Your task to perform on an android device: add a contact Image 0: 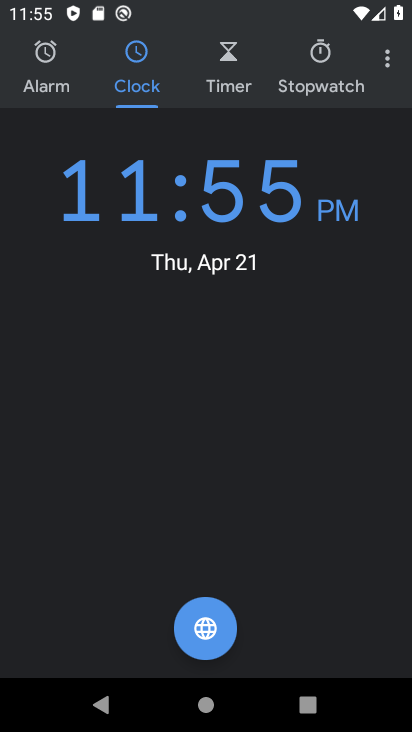
Step 0: press home button
Your task to perform on an android device: add a contact Image 1: 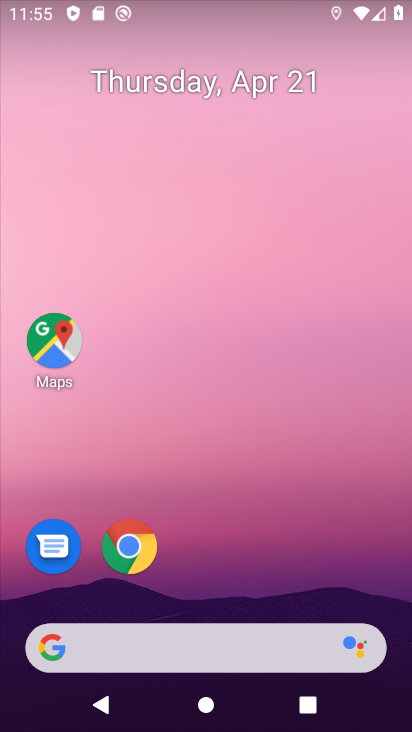
Step 1: drag from (218, 725) to (186, 226)
Your task to perform on an android device: add a contact Image 2: 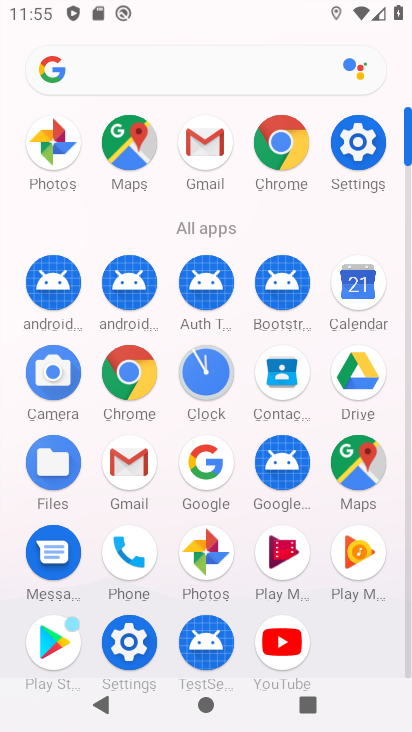
Step 2: click (284, 374)
Your task to perform on an android device: add a contact Image 3: 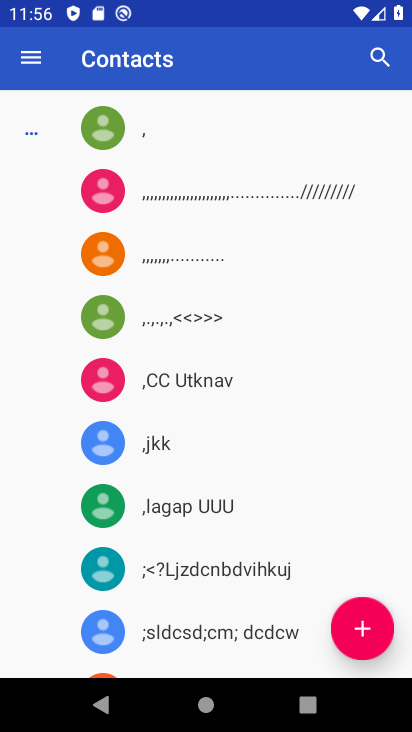
Step 3: click (359, 626)
Your task to perform on an android device: add a contact Image 4: 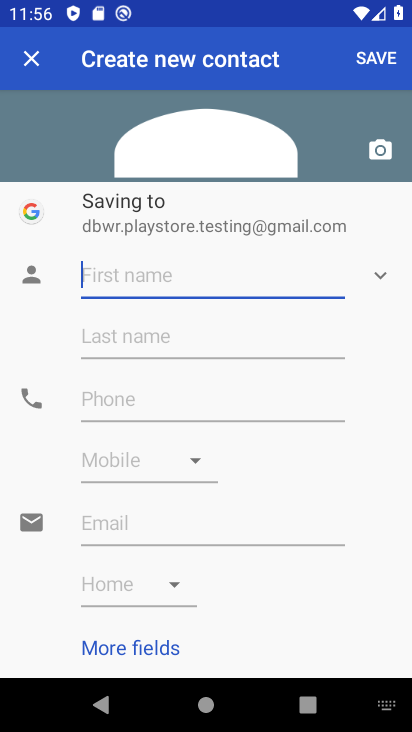
Step 4: type "mmmmm"
Your task to perform on an android device: add a contact Image 5: 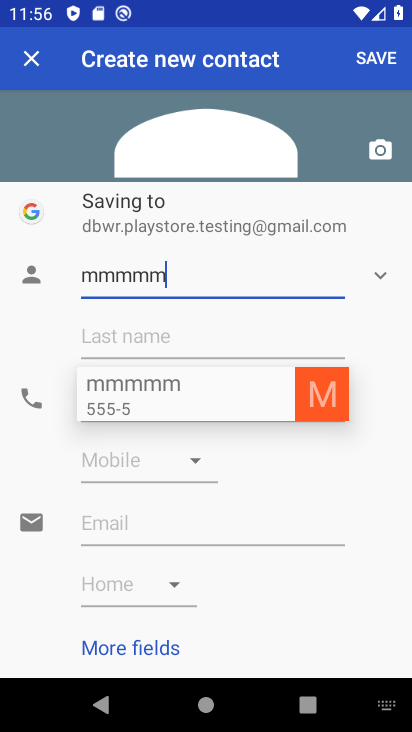
Step 5: type "vvvv"
Your task to perform on an android device: add a contact Image 6: 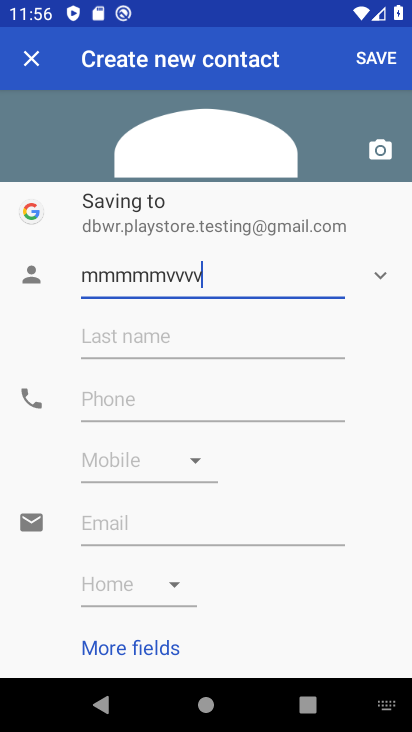
Step 6: click (177, 400)
Your task to perform on an android device: add a contact Image 7: 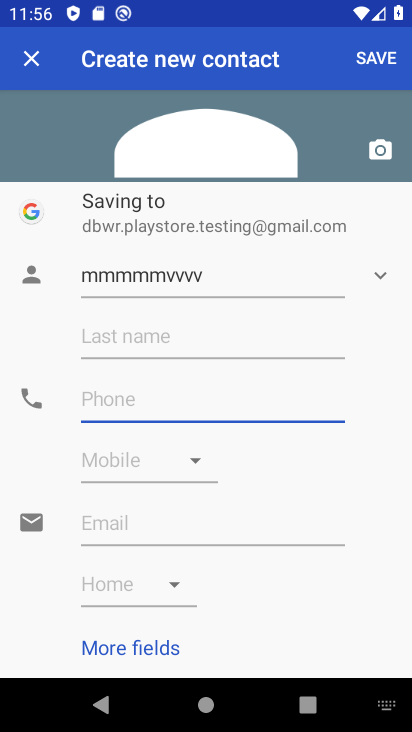
Step 7: type "98765"
Your task to perform on an android device: add a contact Image 8: 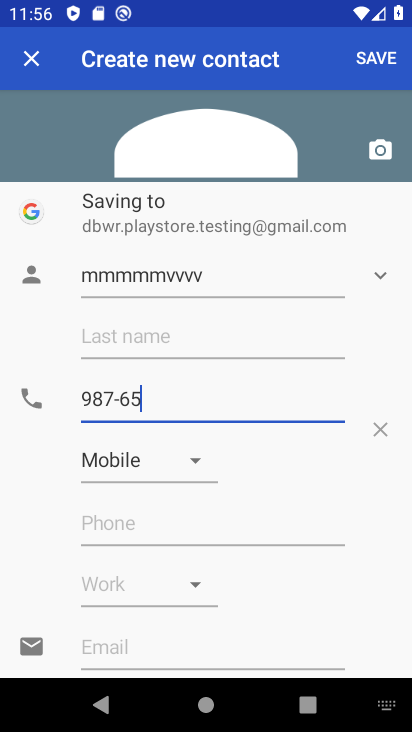
Step 8: click (369, 61)
Your task to perform on an android device: add a contact Image 9: 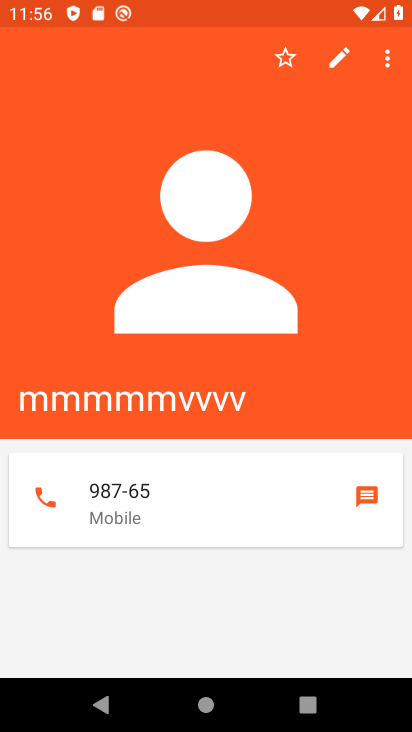
Step 9: task complete